Your task to perform on an android device: Open Amazon Image 0: 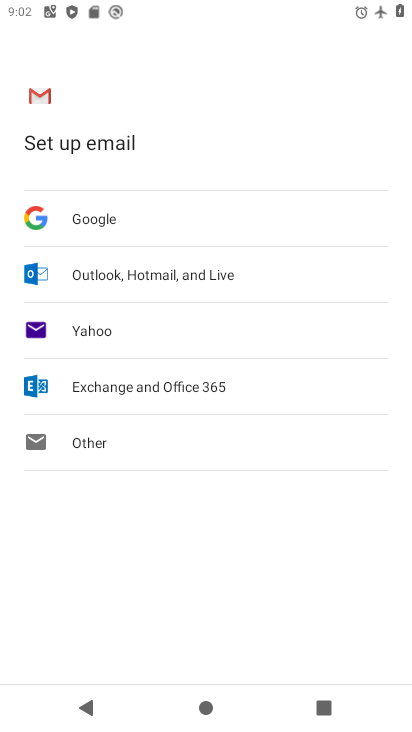
Step 0: drag from (240, 509) to (303, 155)
Your task to perform on an android device: Open Amazon Image 1: 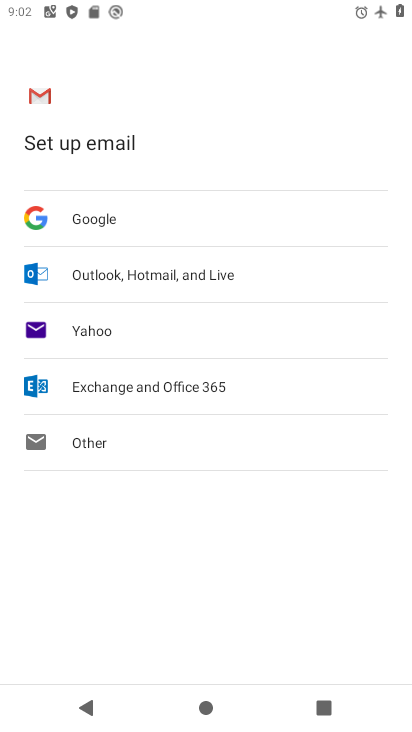
Step 1: click (274, 179)
Your task to perform on an android device: Open Amazon Image 2: 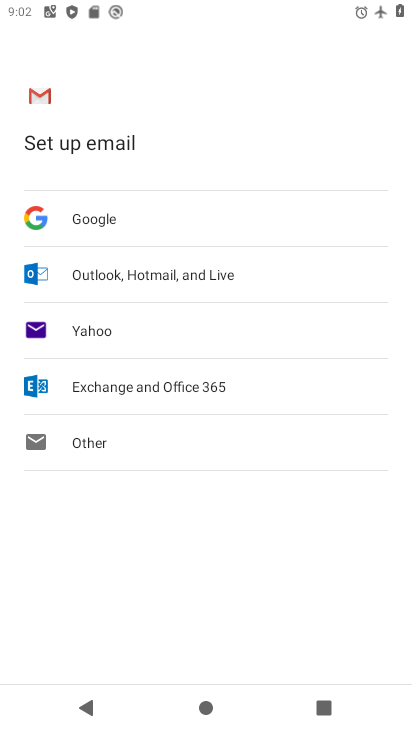
Step 2: press home button
Your task to perform on an android device: Open Amazon Image 3: 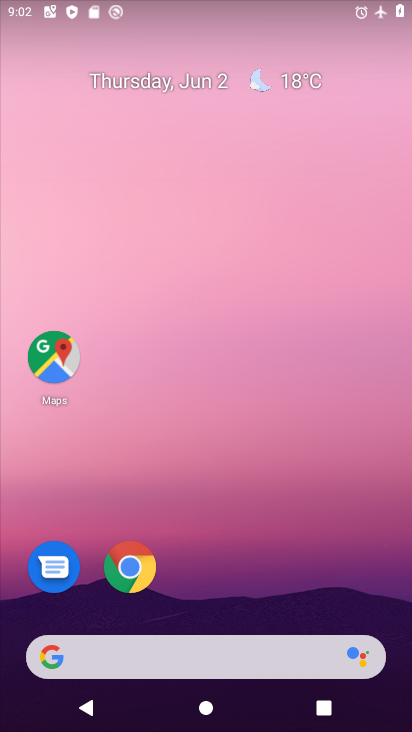
Step 3: click (136, 560)
Your task to perform on an android device: Open Amazon Image 4: 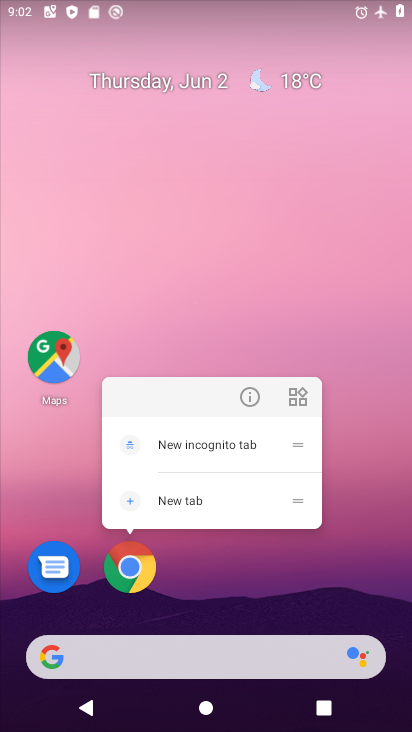
Step 4: click (135, 560)
Your task to perform on an android device: Open Amazon Image 5: 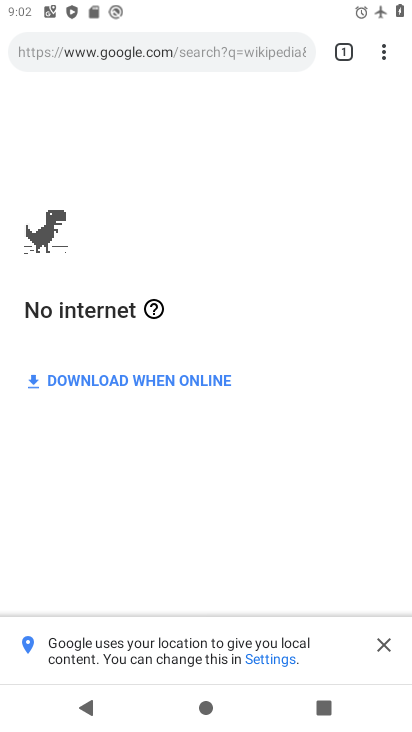
Step 5: click (232, 55)
Your task to perform on an android device: Open Amazon Image 6: 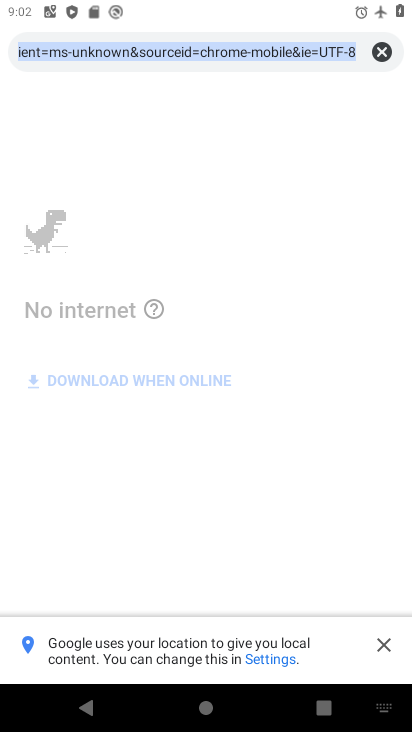
Step 6: type "Amazon"
Your task to perform on an android device: Open Amazon Image 7: 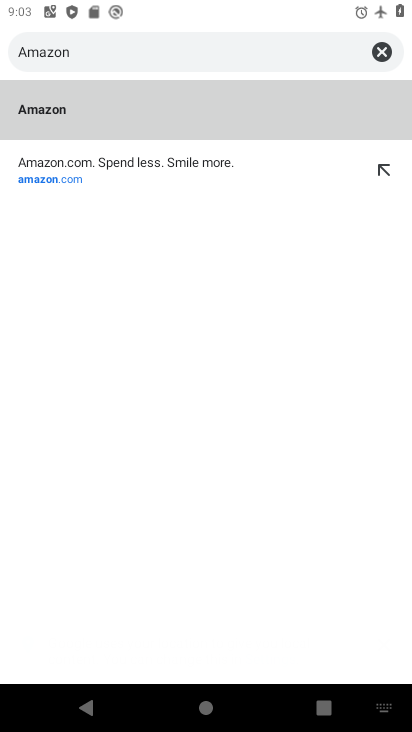
Step 7: click (171, 162)
Your task to perform on an android device: Open Amazon Image 8: 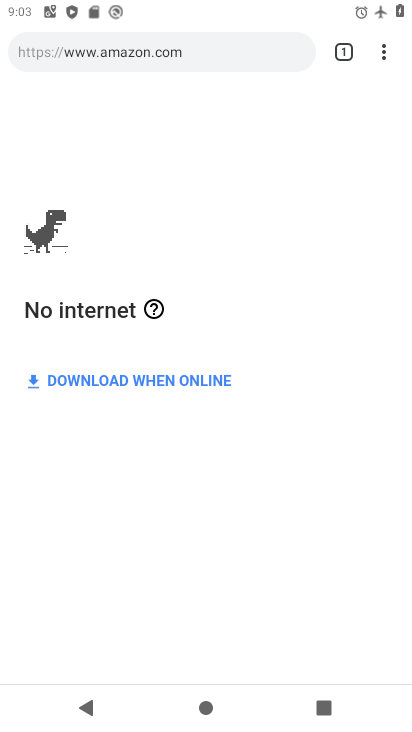
Step 8: task complete